Your task to perform on an android device: Go to Yahoo.com Image 0: 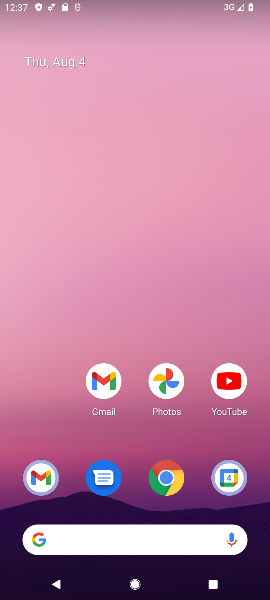
Step 0: press home button
Your task to perform on an android device: Go to Yahoo.com Image 1: 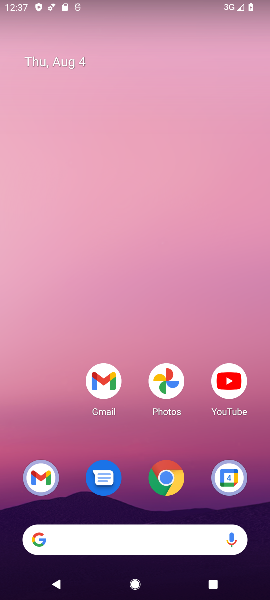
Step 1: click (163, 484)
Your task to perform on an android device: Go to Yahoo.com Image 2: 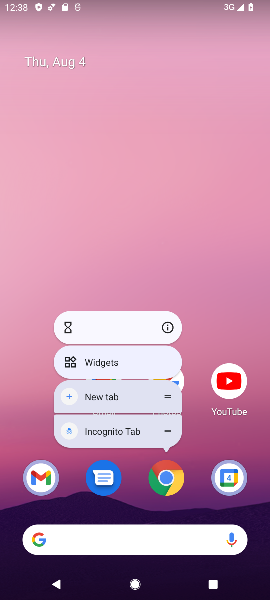
Step 2: click (165, 499)
Your task to perform on an android device: Go to Yahoo.com Image 3: 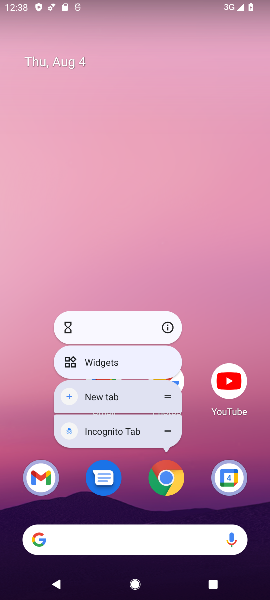
Step 3: click (165, 499)
Your task to perform on an android device: Go to Yahoo.com Image 4: 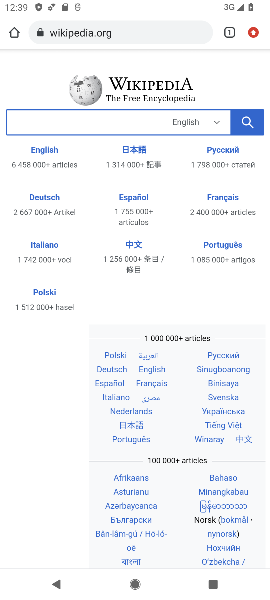
Step 4: click (78, 29)
Your task to perform on an android device: Go to Yahoo.com Image 5: 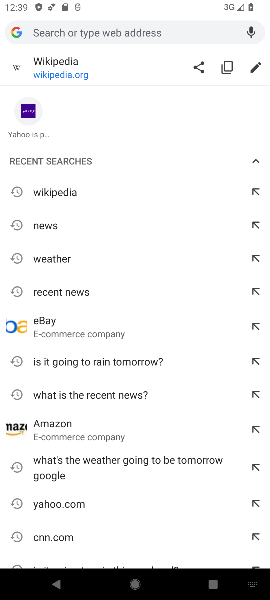
Step 5: type "Yahoo.com"
Your task to perform on an android device: Go to Yahoo.com Image 6: 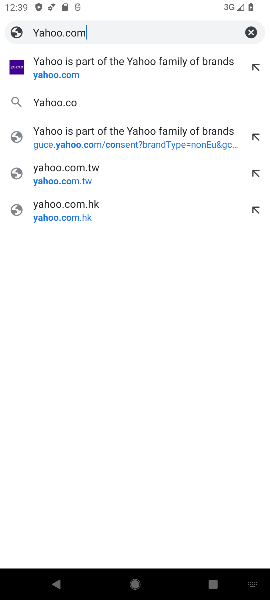
Step 6: type ""
Your task to perform on an android device: Go to Yahoo.com Image 7: 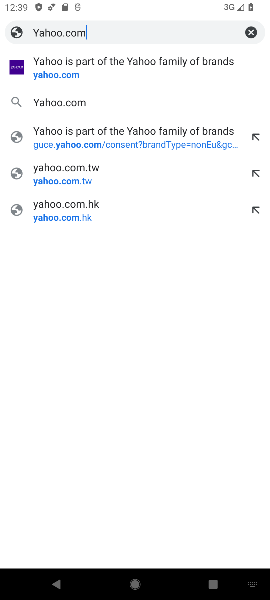
Step 7: click (57, 70)
Your task to perform on an android device: Go to Yahoo.com Image 8: 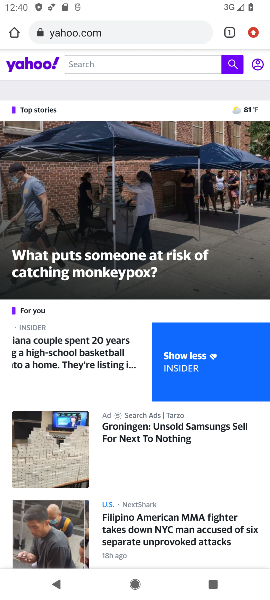
Step 8: task complete